Your task to perform on an android device: Toggle the flashlight Image 0: 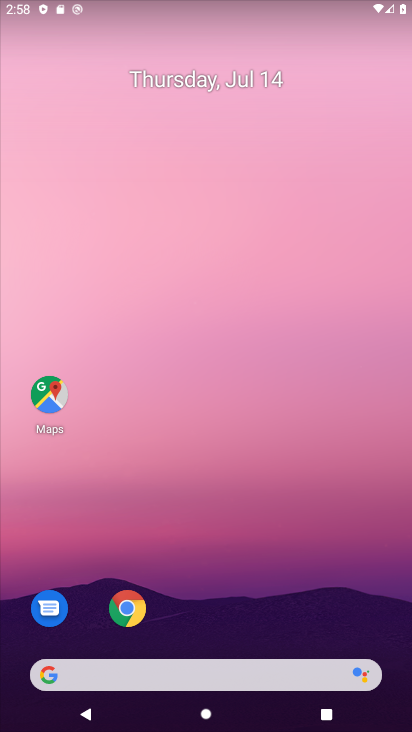
Step 0: drag from (267, 527) to (299, 11)
Your task to perform on an android device: Toggle the flashlight Image 1: 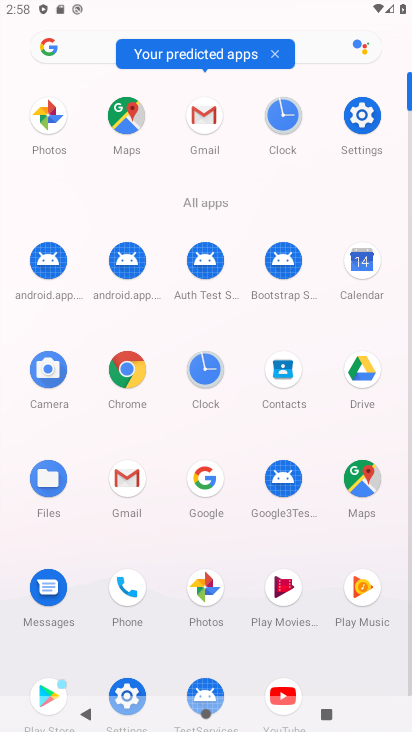
Step 1: click (360, 133)
Your task to perform on an android device: Toggle the flashlight Image 2: 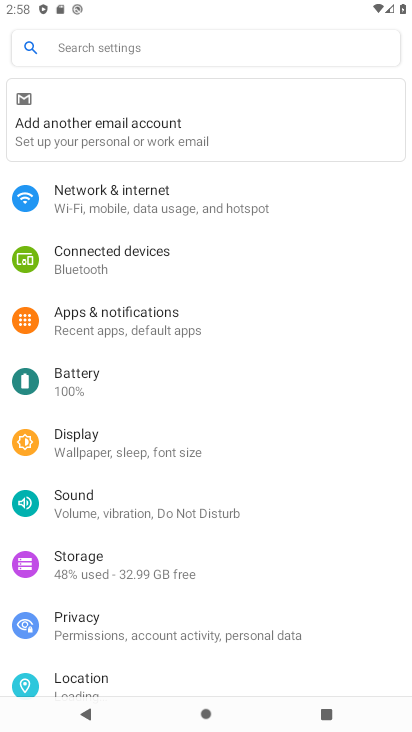
Step 2: click (155, 192)
Your task to perform on an android device: Toggle the flashlight Image 3: 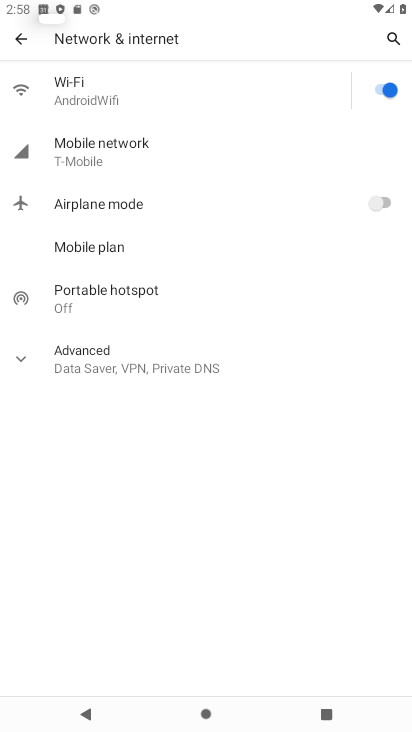
Step 3: press back button
Your task to perform on an android device: Toggle the flashlight Image 4: 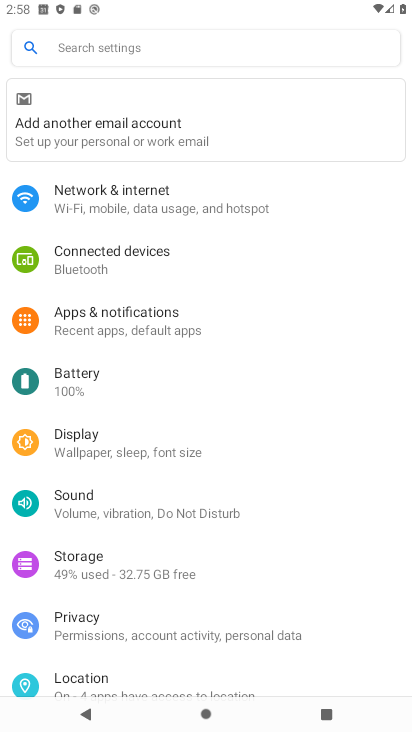
Step 4: click (10, 31)
Your task to perform on an android device: Toggle the flashlight Image 5: 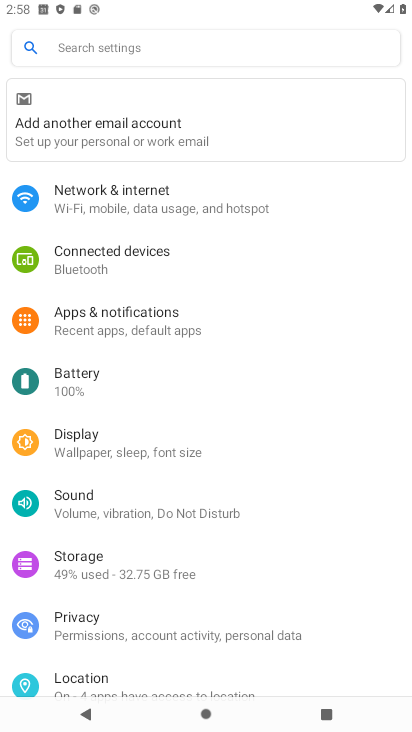
Step 5: task complete